Your task to perform on an android device: change keyboard looks Image 0: 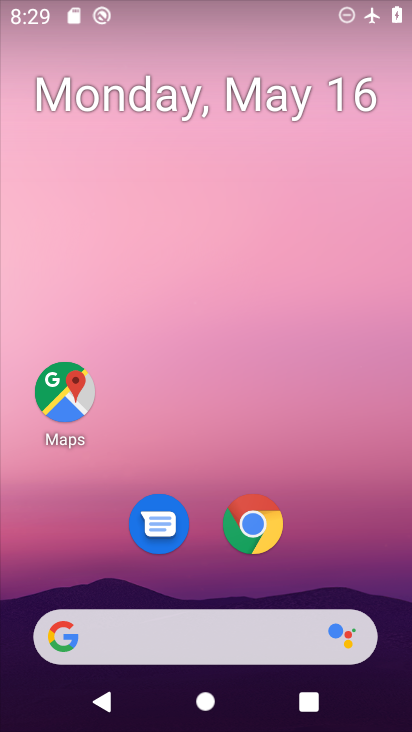
Step 0: drag from (308, 432) to (339, 31)
Your task to perform on an android device: change keyboard looks Image 1: 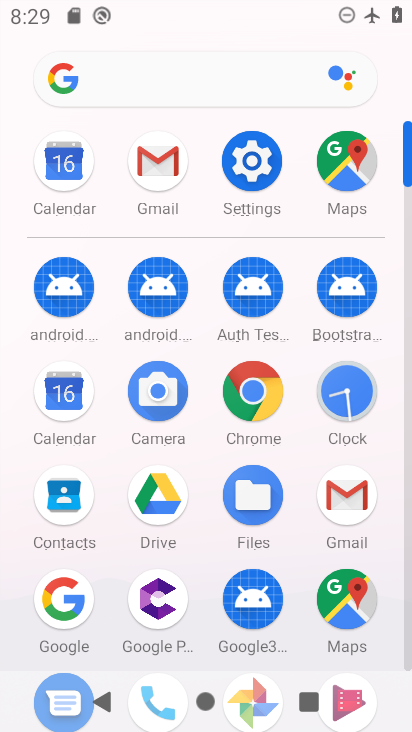
Step 1: click (265, 147)
Your task to perform on an android device: change keyboard looks Image 2: 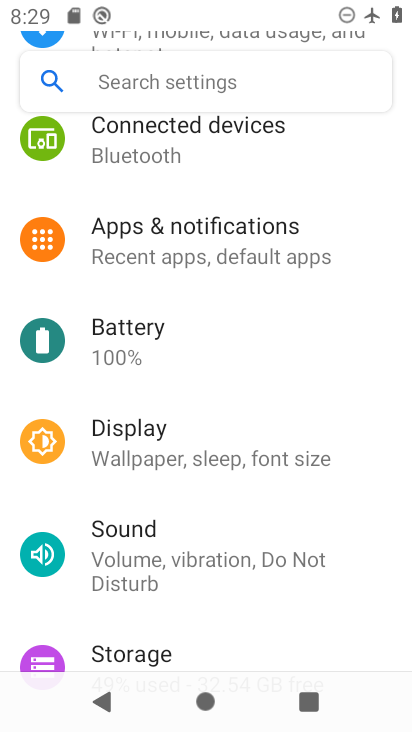
Step 2: drag from (201, 494) to (206, 62)
Your task to perform on an android device: change keyboard looks Image 3: 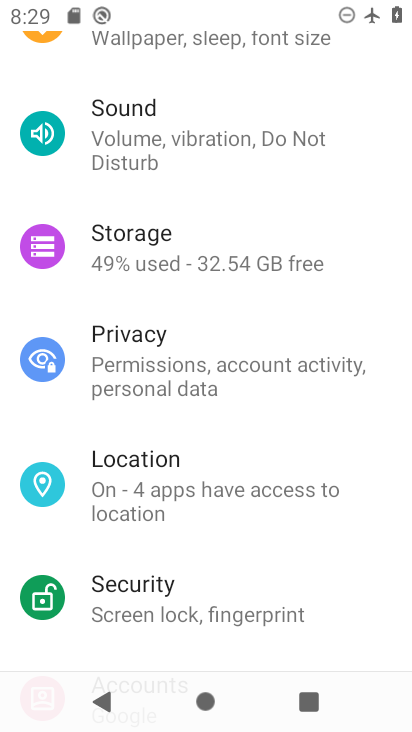
Step 3: drag from (199, 555) to (222, 97)
Your task to perform on an android device: change keyboard looks Image 4: 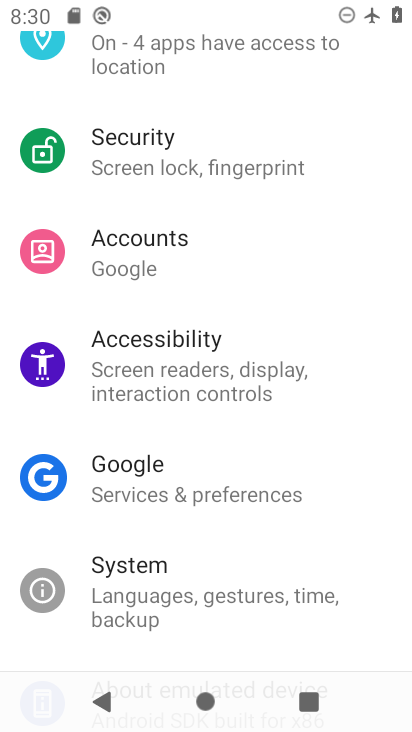
Step 4: click (210, 573)
Your task to perform on an android device: change keyboard looks Image 5: 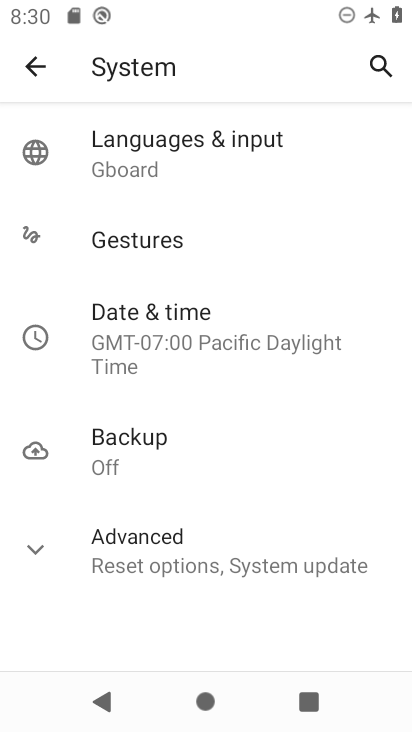
Step 5: click (205, 150)
Your task to perform on an android device: change keyboard looks Image 6: 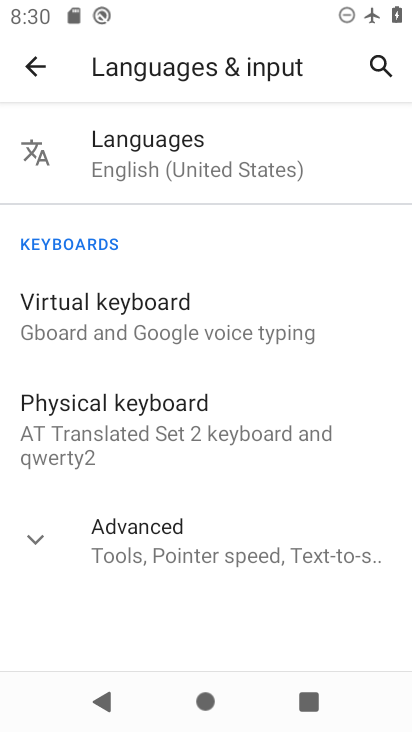
Step 6: click (156, 309)
Your task to perform on an android device: change keyboard looks Image 7: 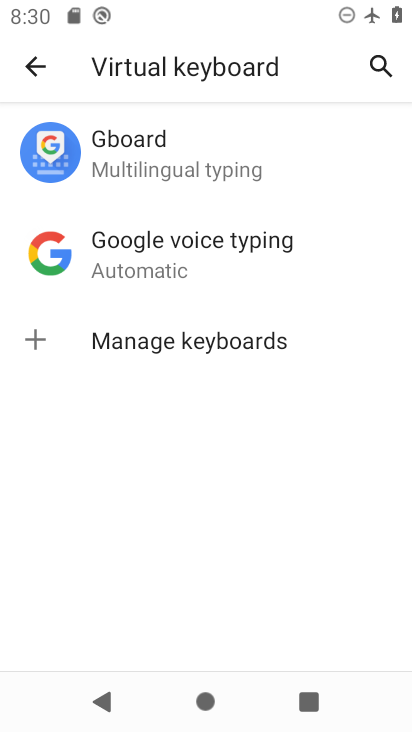
Step 7: click (178, 152)
Your task to perform on an android device: change keyboard looks Image 8: 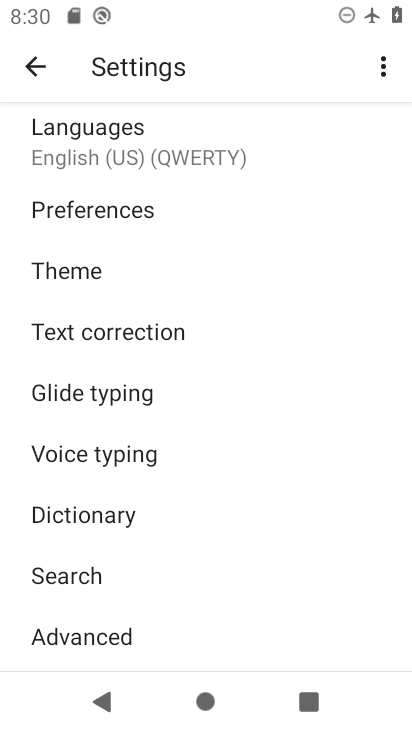
Step 8: click (113, 270)
Your task to perform on an android device: change keyboard looks Image 9: 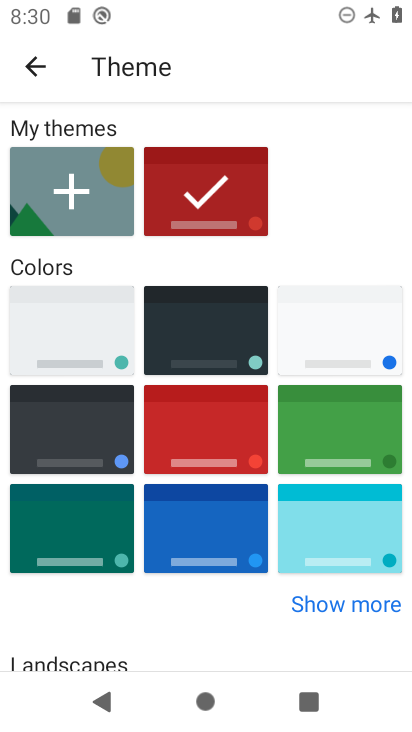
Step 9: click (104, 327)
Your task to perform on an android device: change keyboard looks Image 10: 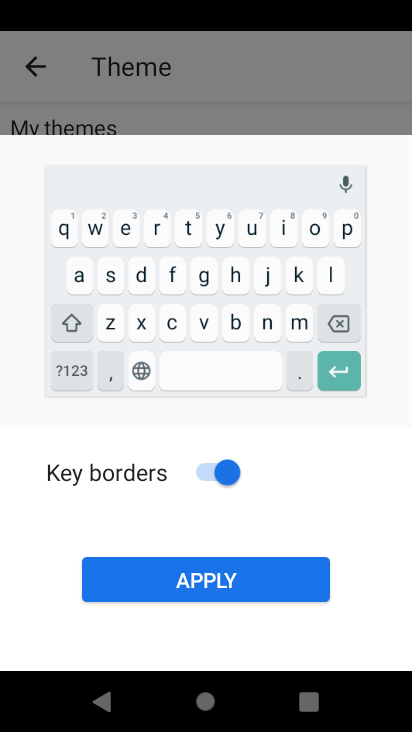
Step 10: click (235, 580)
Your task to perform on an android device: change keyboard looks Image 11: 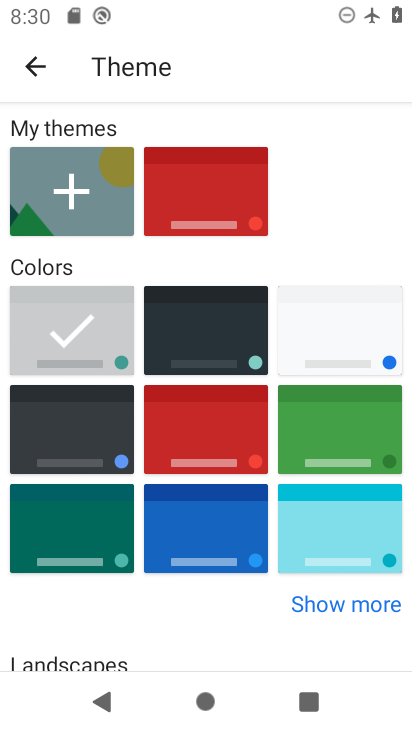
Step 11: task complete